Your task to perform on an android device: Go to battery settings Image 0: 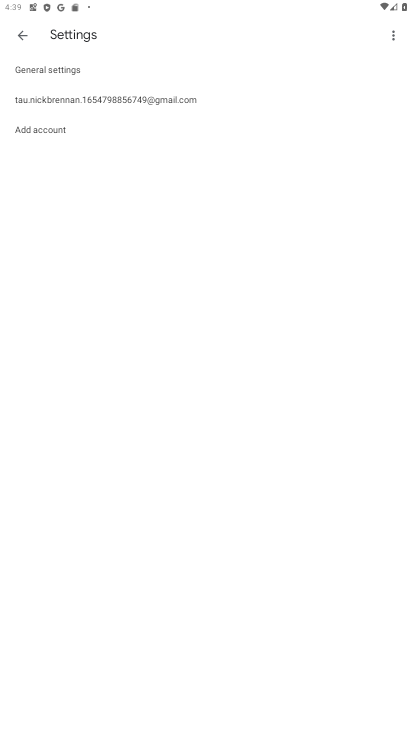
Step 0: press home button
Your task to perform on an android device: Go to battery settings Image 1: 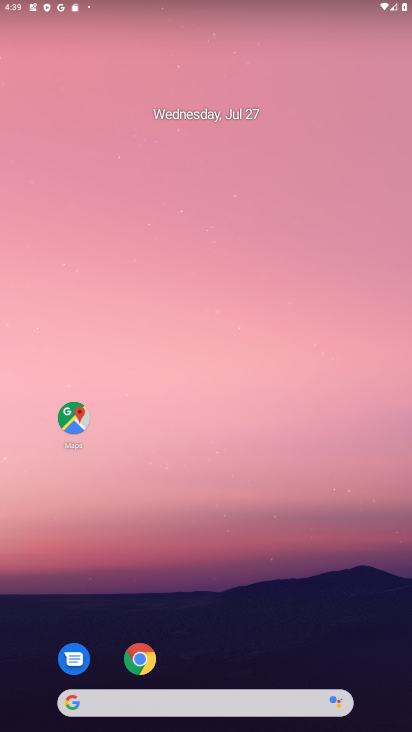
Step 1: drag from (258, 646) to (240, 104)
Your task to perform on an android device: Go to battery settings Image 2: 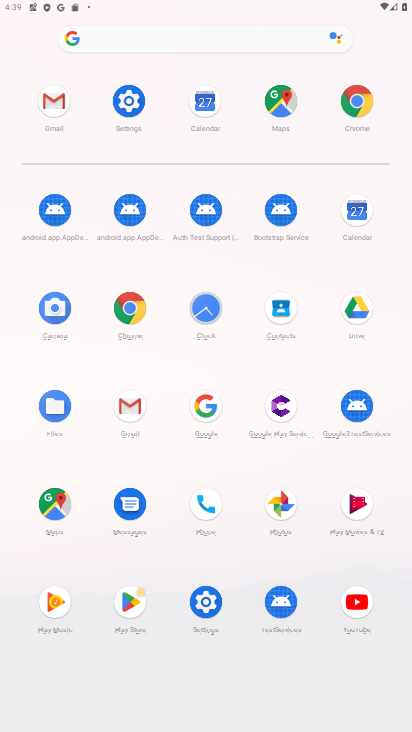
Step 2: click (138, 119)
Your task to perform on an android device: Go to battery settings Image 3: 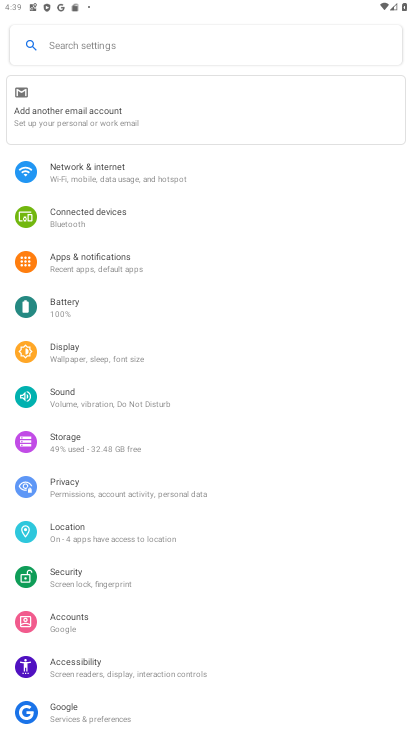
Step 3: click (158, 305)
Your task to perform on an android device: Go to battery settings Image 4: 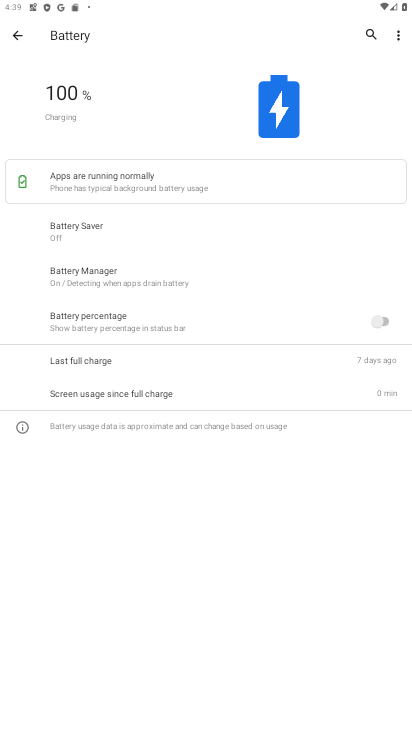
Step 4: task complete